Your task to perform on an android device: turn notification dots on Image 0: 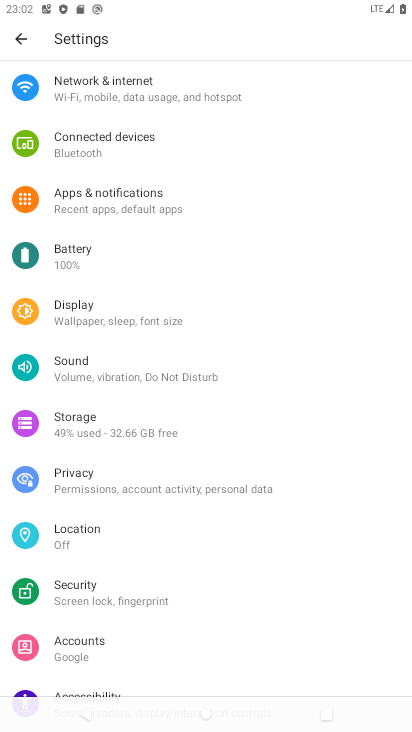
Step 0: press home button
Your task to perform on an android device: turn notification dots on Image 1: 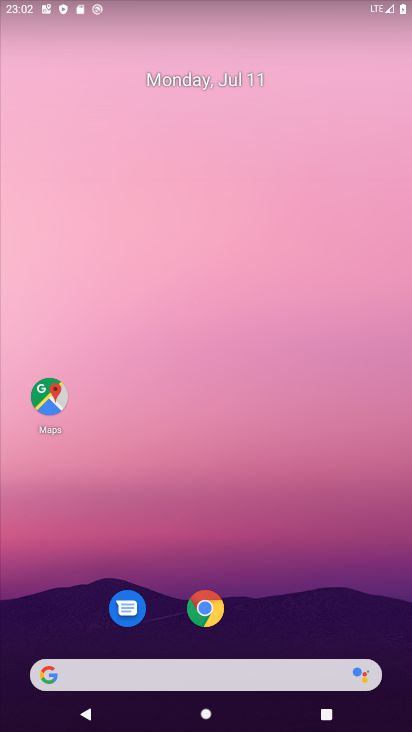
Step 1: drag from (37, 712) to (328, 0)
Your task to perform on an android device: turn notification dots on Image 2: 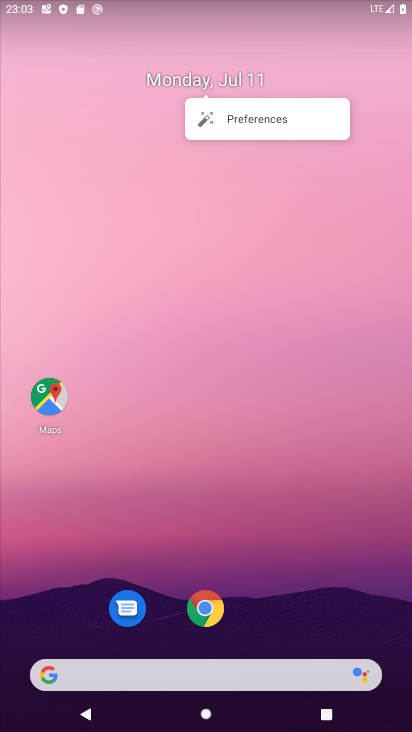
Step 2: drag from (40, 713) to (187, 61)
Your task to perform on an android device: turn notification dots on Image 3: 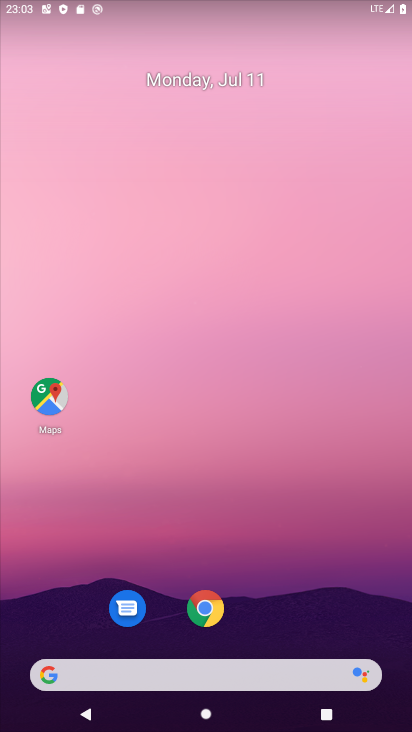
Step 3: drag from (37, 711) to (147, 126)
Your task to perform on an android device: turn notification dots on Image 4: 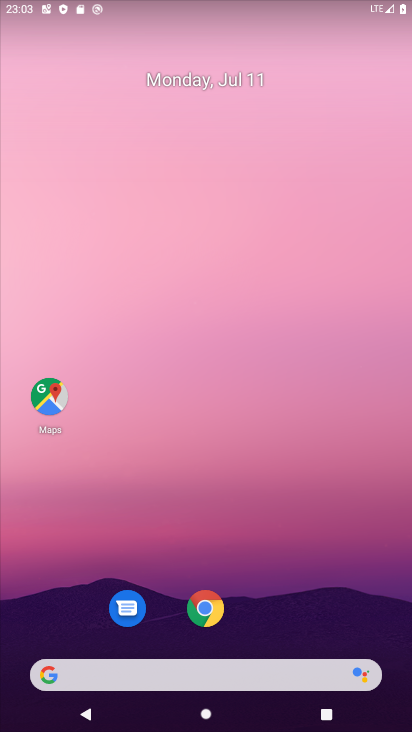
Step 4: drag from (49, 686) to (171, 2)
Your task to perform on an android device: turn notification dots on Image 5: 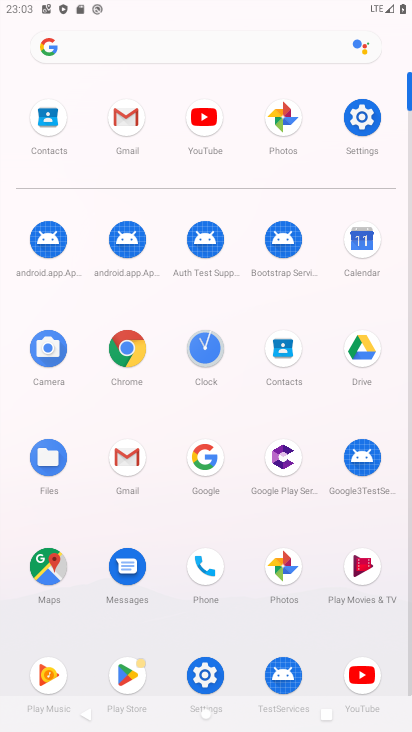
Step 5: click (195, 657)
Your task to perform on an android device: turn notification dots on Image 6: 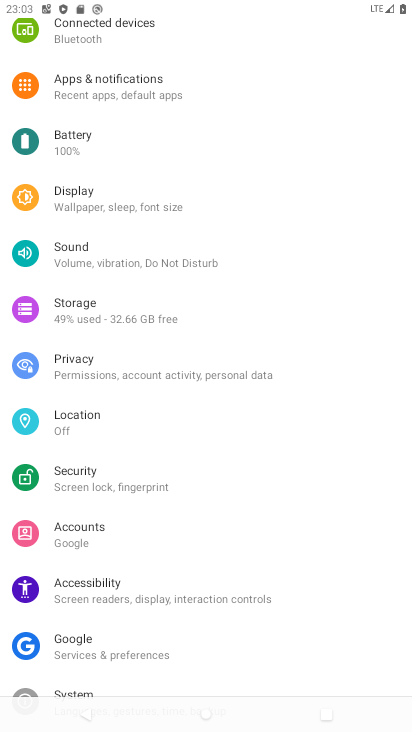
Step 6: drag from (198, 638) to (209, 5)
Your task to perform on an android device: turn notification dots on Image 7: 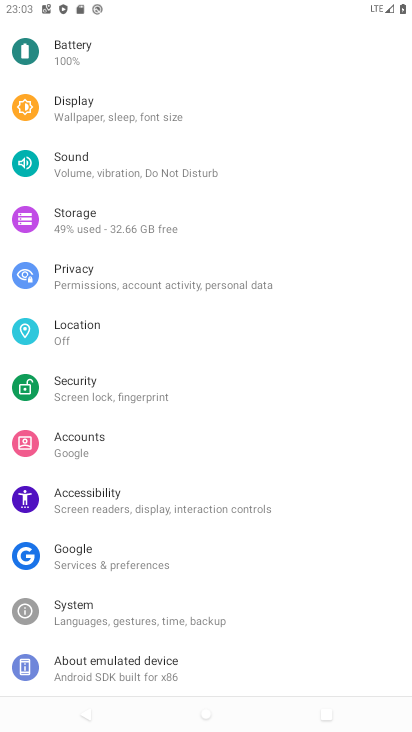
Step 7: drag from (236, 561) to (238, 11)
Your task to perform on an android device: turn notification dots on Image 8: 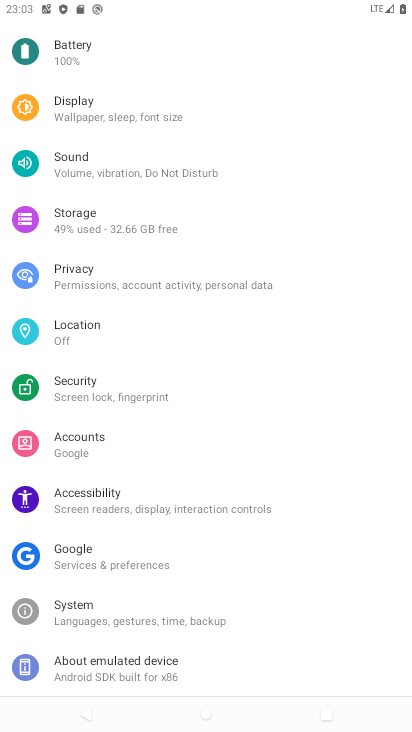
Step 8: drag from (197, 105) to (233, 727)
Your task to perform on an android device: turn notification dots on Image 9: 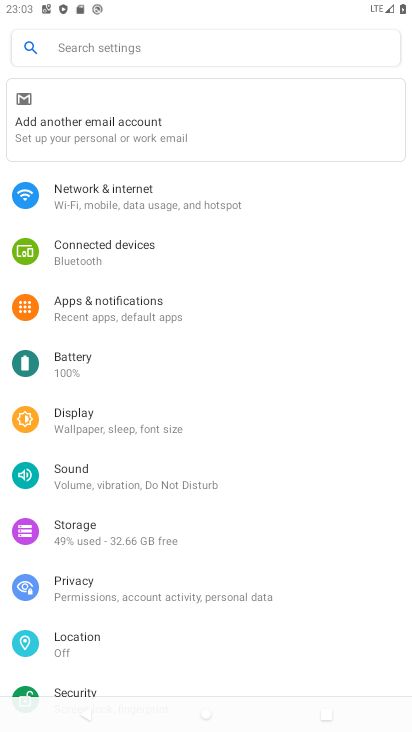
Step 9: click (120, 310)
Your task to perform on an android device: turn notification dots on Image 10: 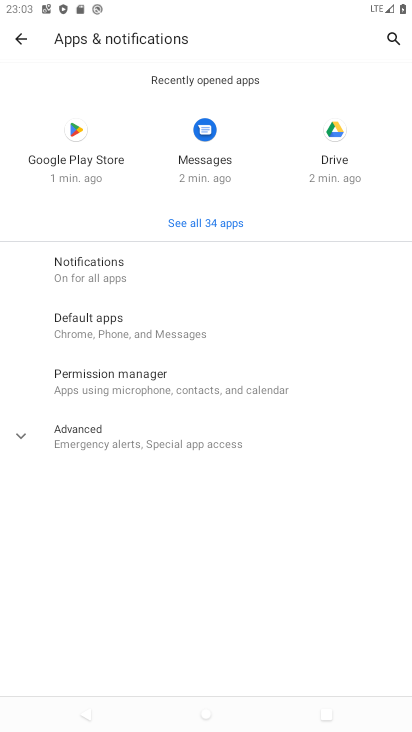
Step 10: click (119, 436)
Your task to perform on an android device: turn notification dots on Image 11: 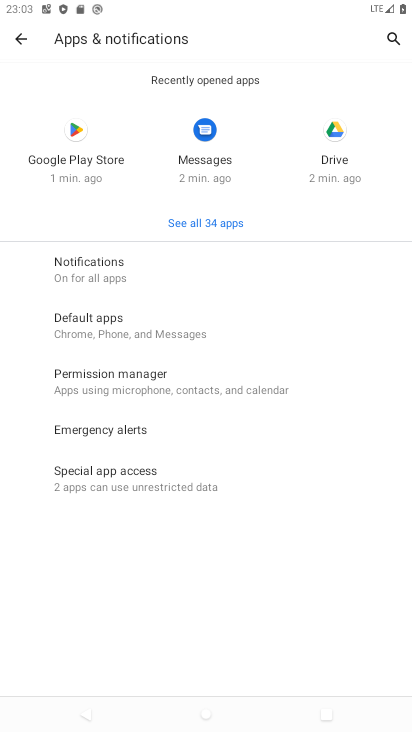
Step 11: click (108, 244)
Your task to perform on an android device: turn notification dots on Image 12: 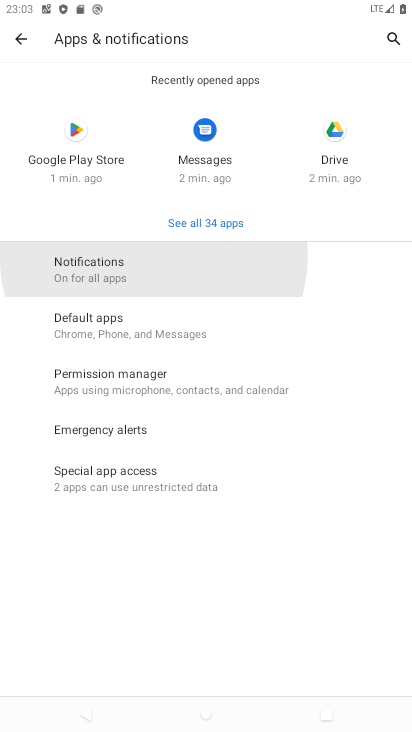
Step 12: click (113, 270)
Your task to perform on an android device: turn notification dots on Image 13: 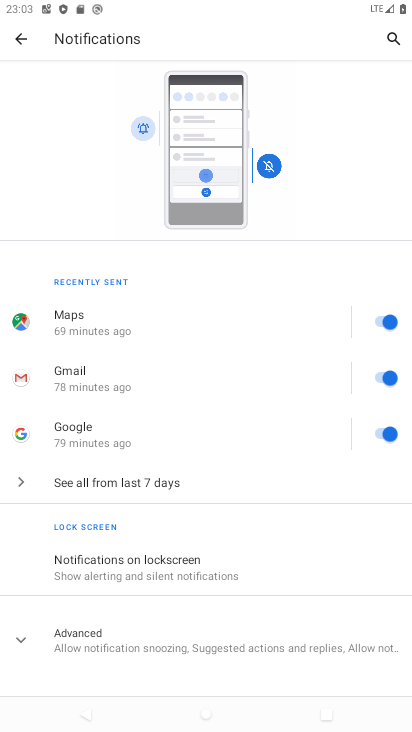
Step 13: click (170, 636)
Your task to perform on an android device: turn notification dots on Image 14: 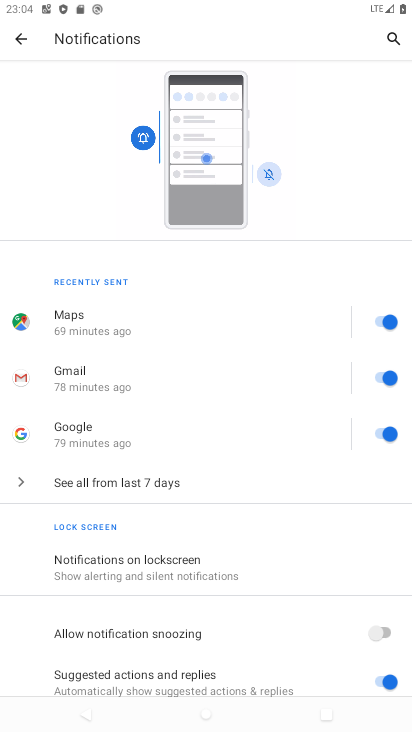
Step 14: task complete